Your task to perform on an android device: star an email in the gmail app Image 0: 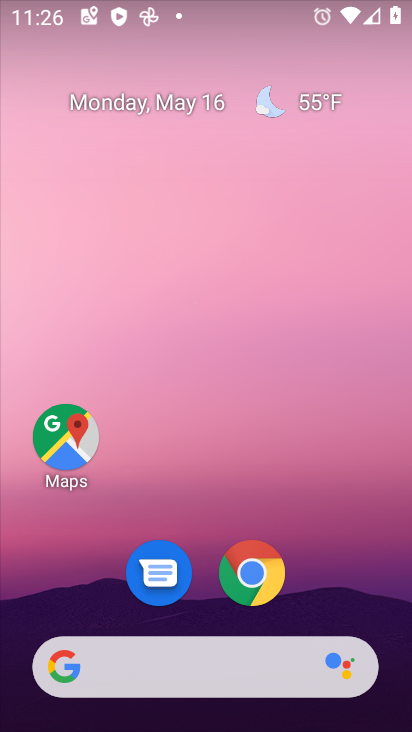
Step 0: drag from (328, 536) to (277, 165)
Your task to perform on an android device: star an email in the gmail app Image 1: 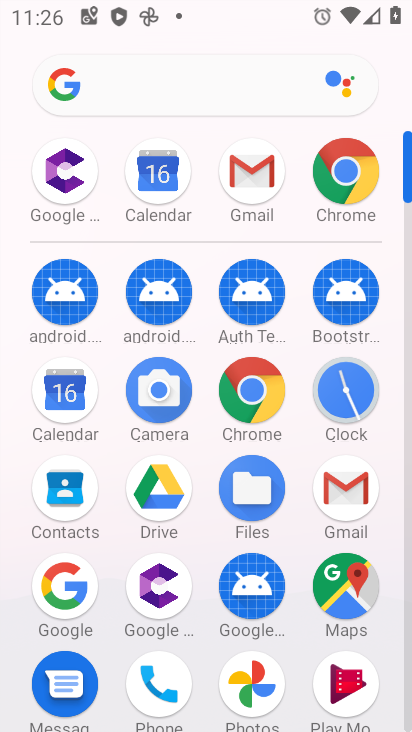
Step 1: click (343, 506)
Your task to perform on an android device: star an email in the gmail app Image 2: 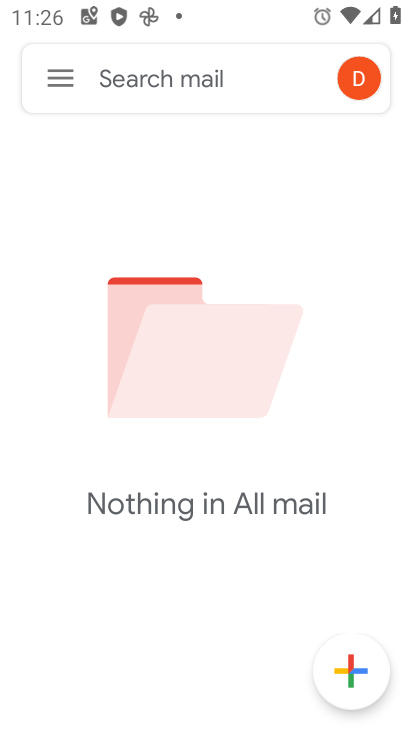
Step 2: click (62, 97)
Your task to perform on an android device: star an email in the gmail app Image 3: 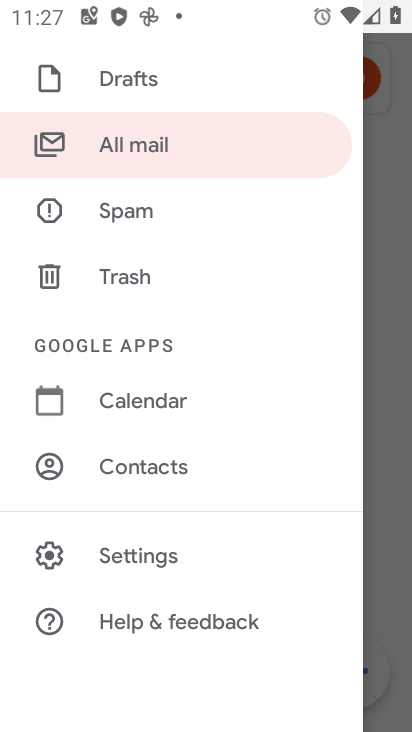
Step 3: click (140, 150)
Your task to perform on an android device: star an email in the gmail app Image 4: 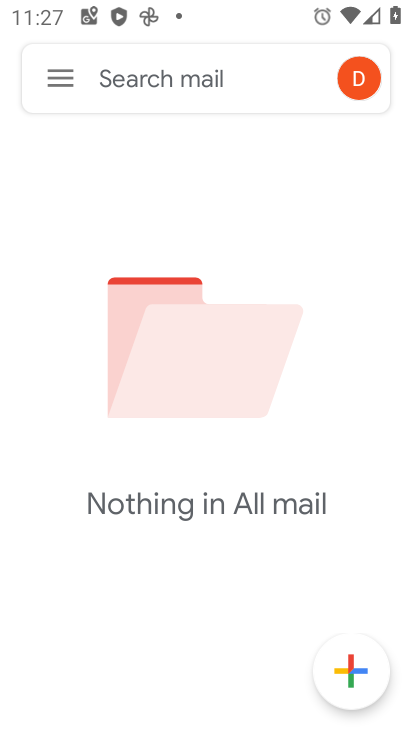
Step 4: task complete